Your task to perform on an android device: See recent photos Image 0: 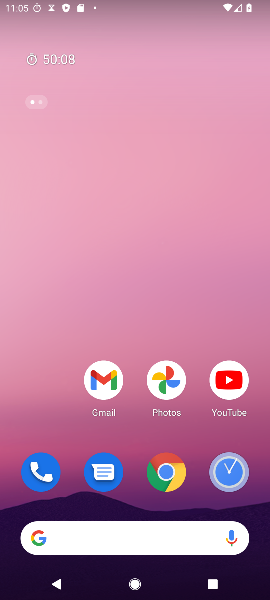
Step 0: drag from (196, 341) to (172, 9)
Your task to perform on an android device: See recent photos Image 1: 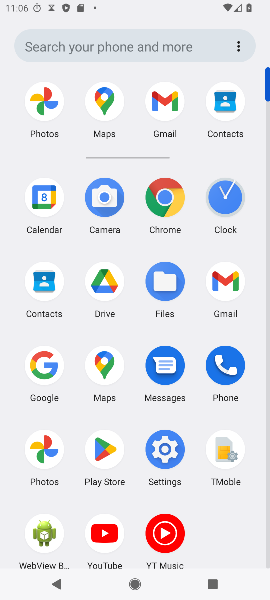
Step 1: click (42, 100)
Your task to perform on an android device: See recent photos Image 2: 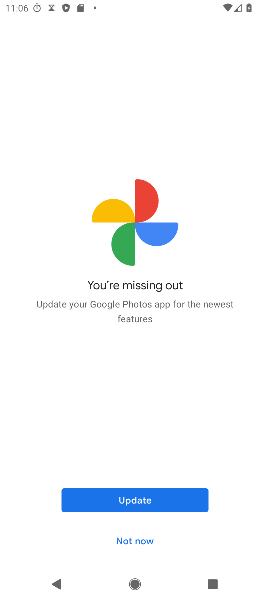
Step 2: drag from (131, 538) to (32, 400)
Your task to perform on an android device: See recent photos Image 3: 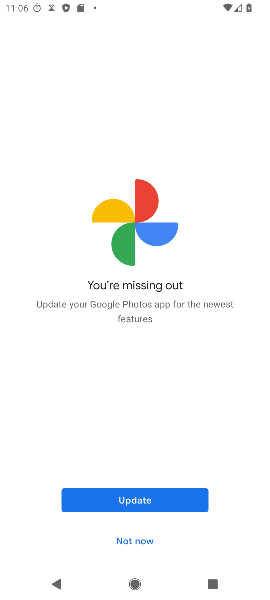
Step 3: click (130, 499)
Your task to perform on an android device: See recent photos Image 4: 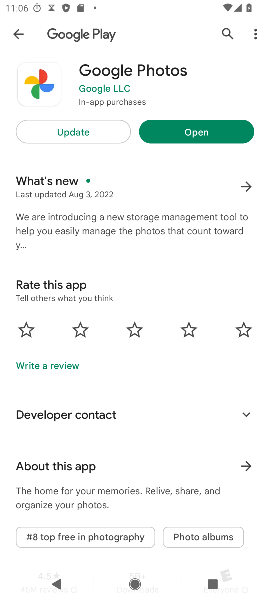
Step 4: click (105, 134)
Your task to perform on an android device: See recent photos Image 5: 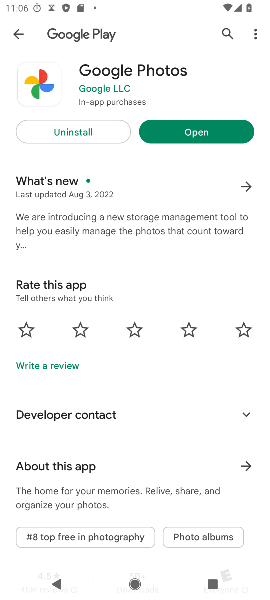
Step 5: click (232, 134)
Your task to perform on an android device: See recent photos Image 6: 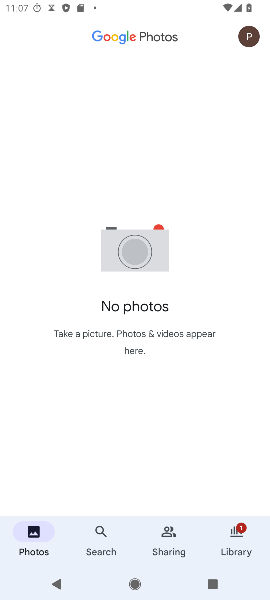
Step 6: task complete